Your task to perform on an android device: open a bookmark in the chrome app Image 0: 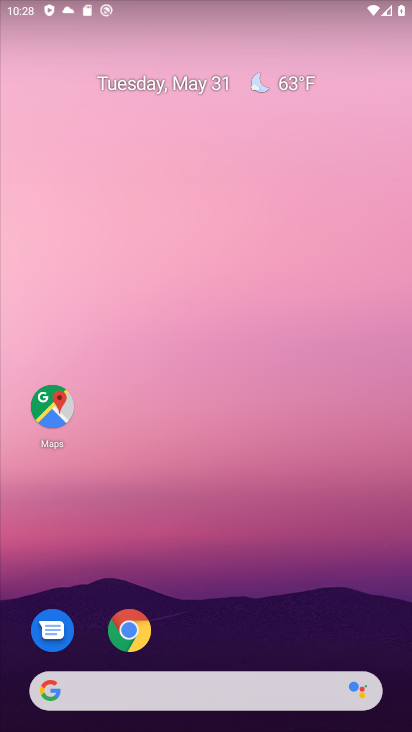
Step 0: click (126, 636)
Your task to perform on an android device: open a bookmark in the chrome app Image 1: 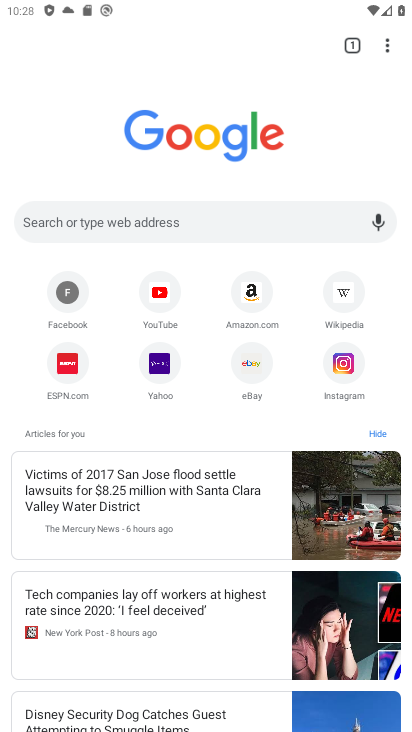
Step 1: click (385, 45)
Your task to perform on an android device: open a bookmark in the chrome app Image 2: 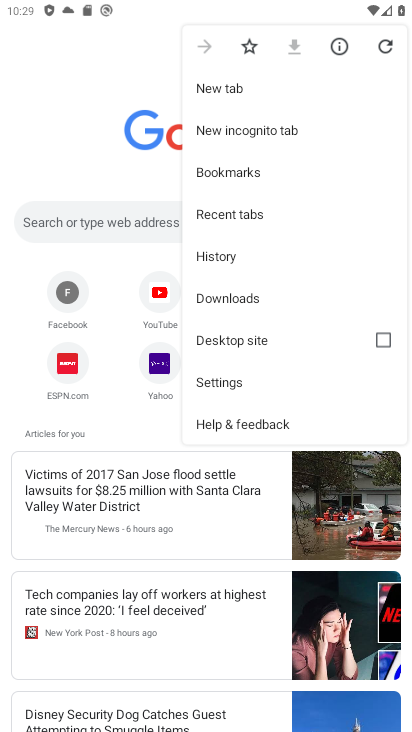
Step 2: click (256, 177)
Your task to perform on an android device: open a bookmark in the chrome app Image 3: 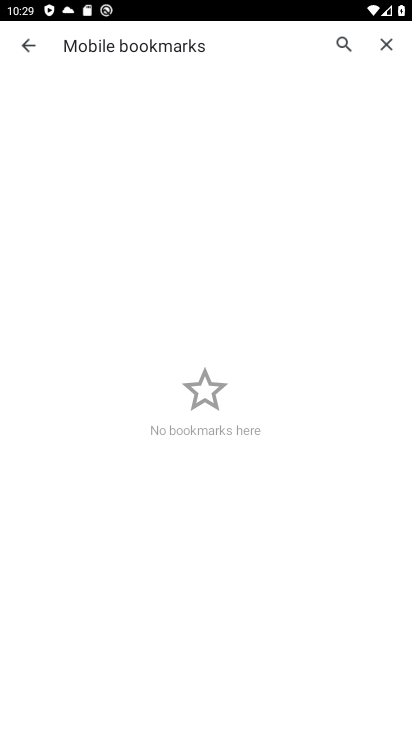
Step 3: task complete